Your task to perform on an android device: Search for seafood restaurants on Google Maps Image 0: 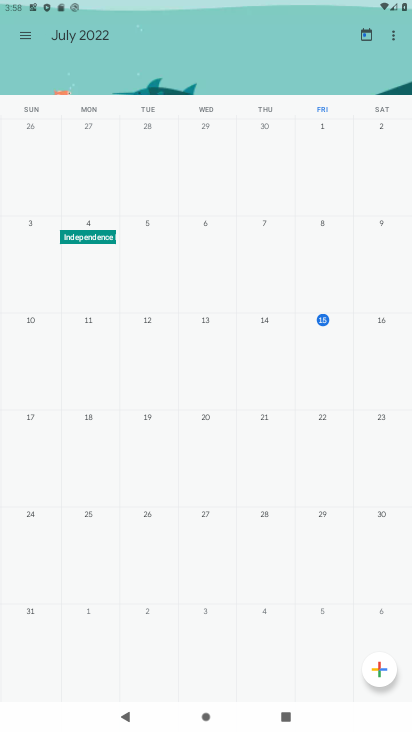
Step 0: press home button
Your task to perform on an android device: Search for seafood restaurants on Google Maps Image 1: 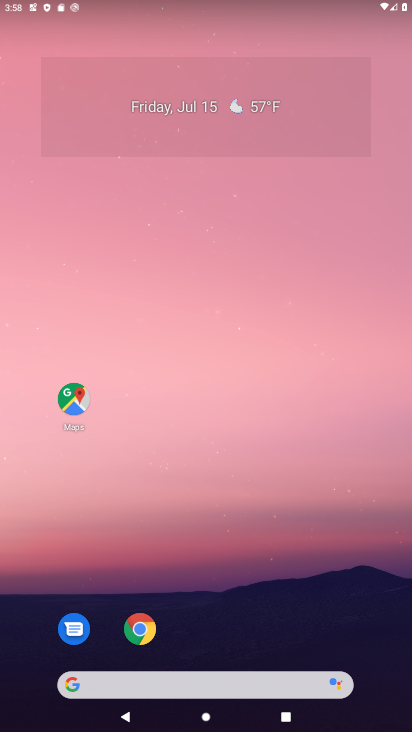
Step 1: click (58, 396)
Your task to perform on an android device: Search for seafood restaurants on Google Maps Image 2: 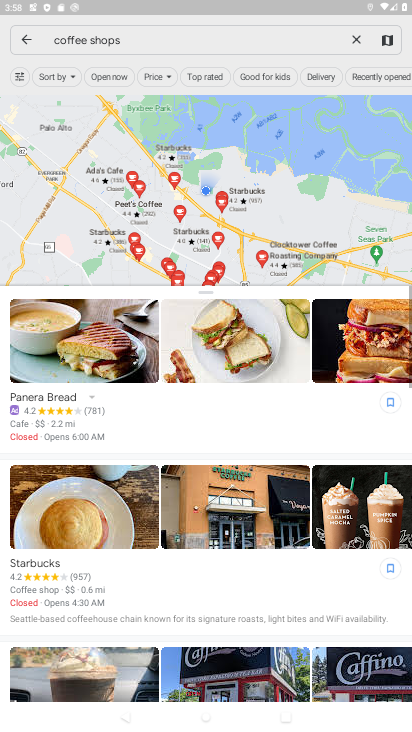
Step 2: click (357, 31)
Your task to perform on an android device: Search for seafood restaurants on Google Maps Image 3: 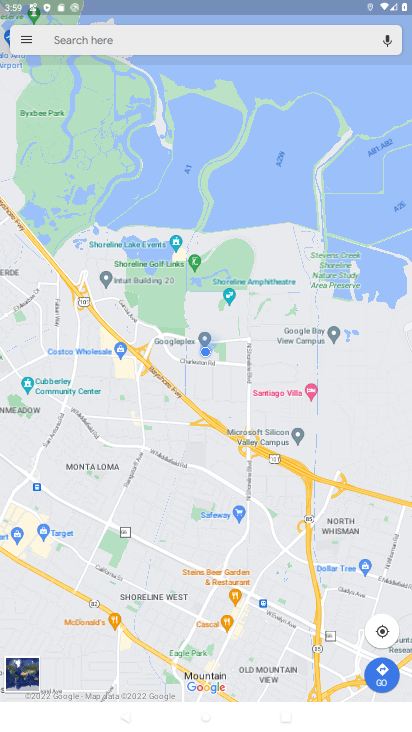
Step 3: type "seafood restaurants"
Your task to perform on an android device: Search for seafood restaurants on Google Maps Image 4: 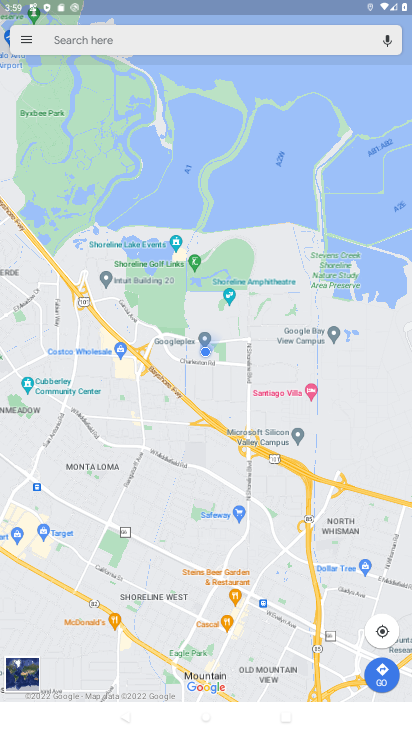
Step 4: click (122, 34)
Your task to perform on an android device: Search for seafood restaurants on Google Maps Image 5: 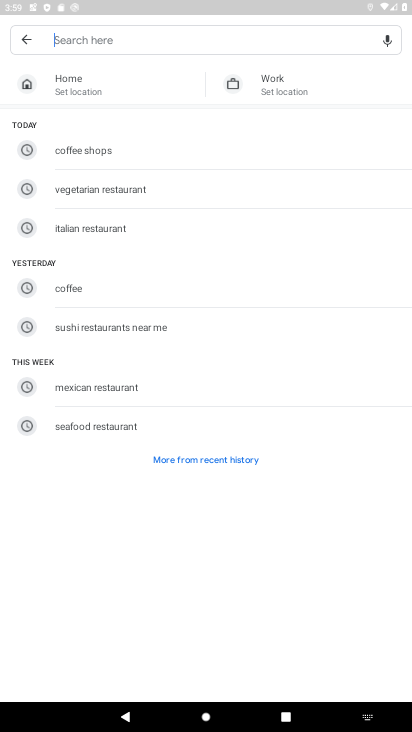
Step 5: click (77, 423)
Your task to perform on an android device: Search for seafood restaurants on Google Maps Image 6: 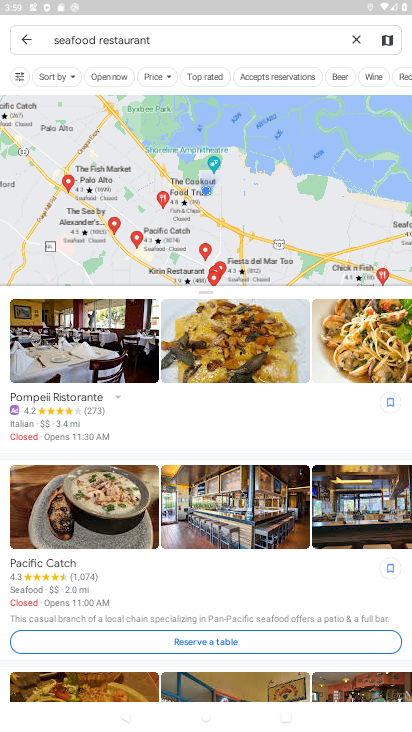
Step 6: task complete